Your task to perform on an android device: Open Youtube and go to "Your channel" Image 0: 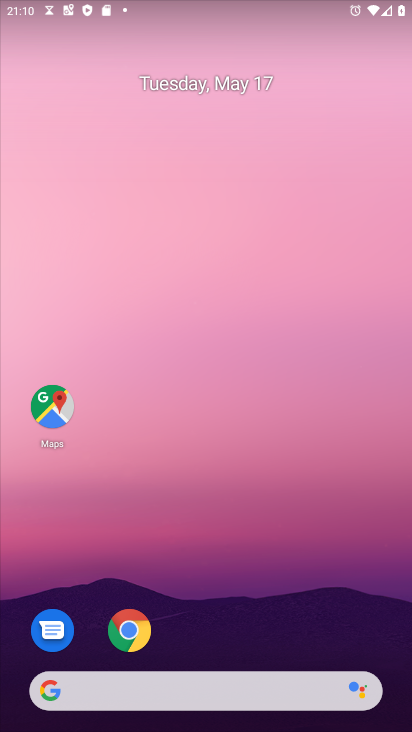
Step 0: drag from (214, 602) to (262, 164)
Your task to perform on an android device: Open Youtube and go to "Your channel" Image 1: 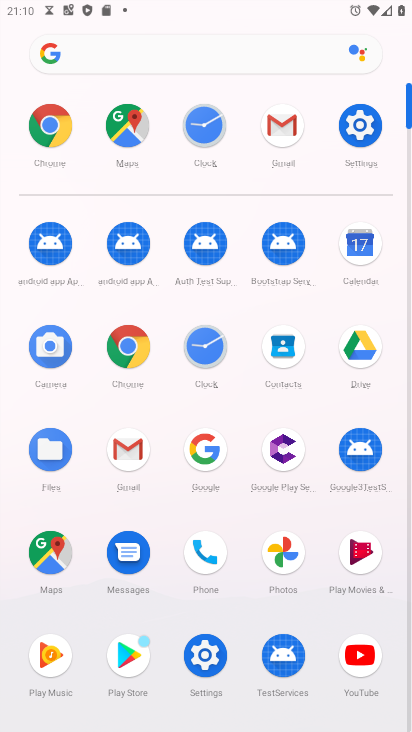
Step 1: click (353, 646)
Your task to perform on an android device: Open Youtube and go to "Your channel" Image 2: 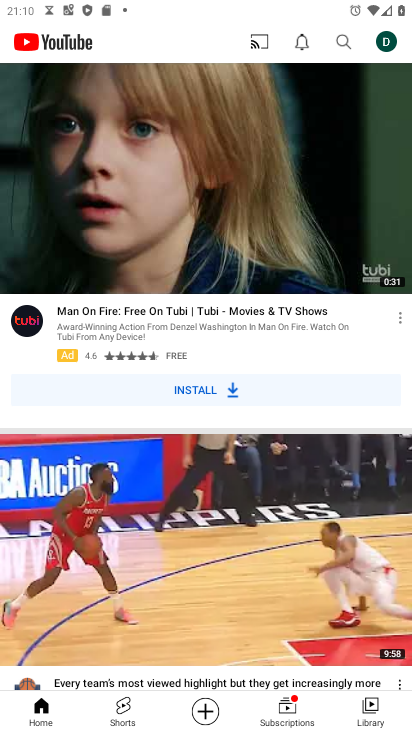
Step 2: click (390, 39)
Your task to perform on an android device: Open Youtube and go to "Your channel" Image 3: 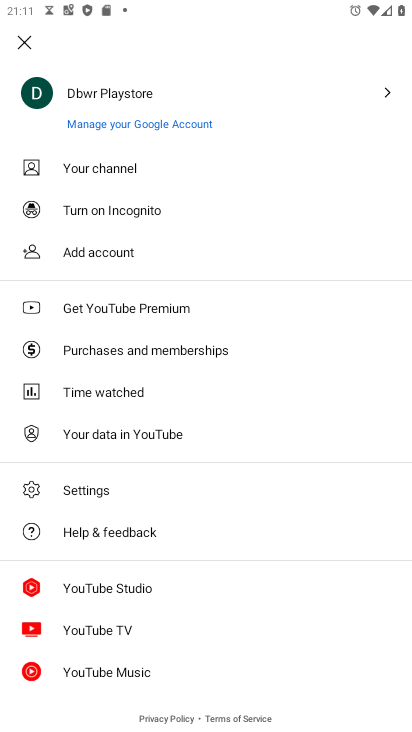
Step 3: click (94, 172)
Your task to perform on an android device: Open Youtube and go to "Your channel" Image 4: 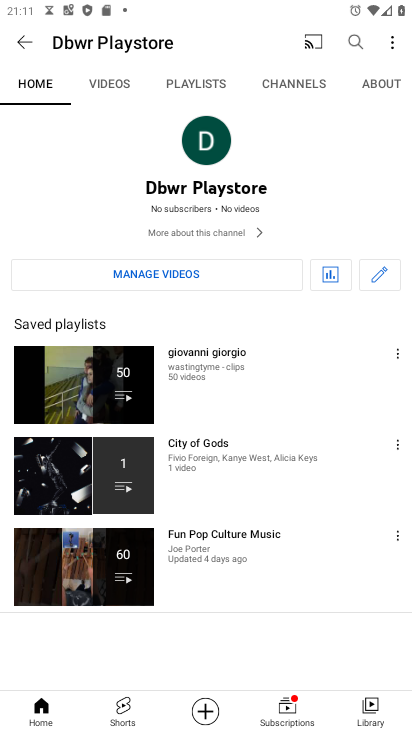
Step 4: task complete